Your task to perform on an android device: Go to Google maps Image 0: 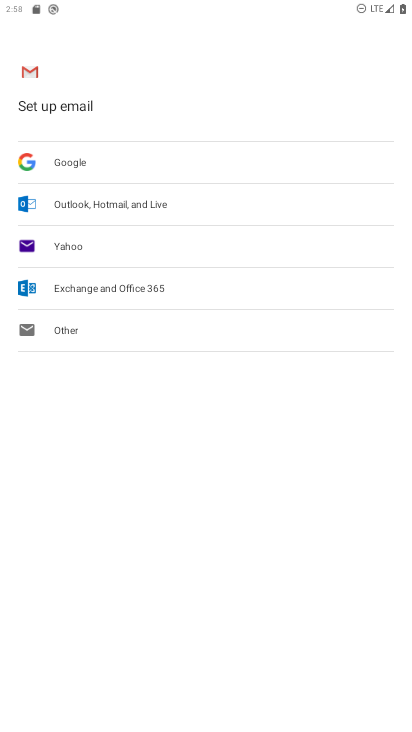
Step 0: press home button
Your task to perform on an android device: Go to Google maps Image 1: 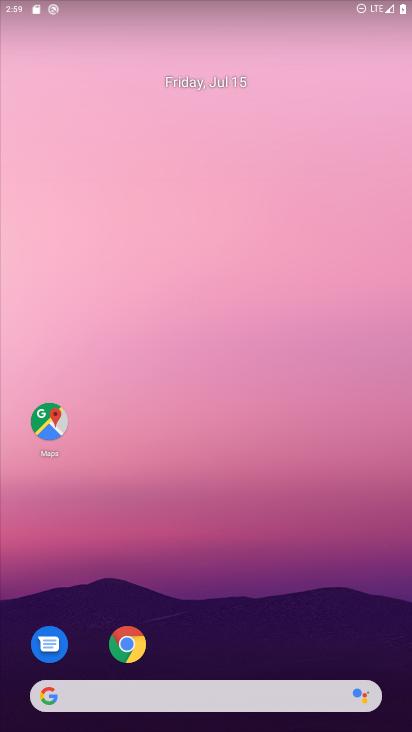
Step 1: click (35, 425)
Your task to perform on an android device: Go to Google maps Image 2: 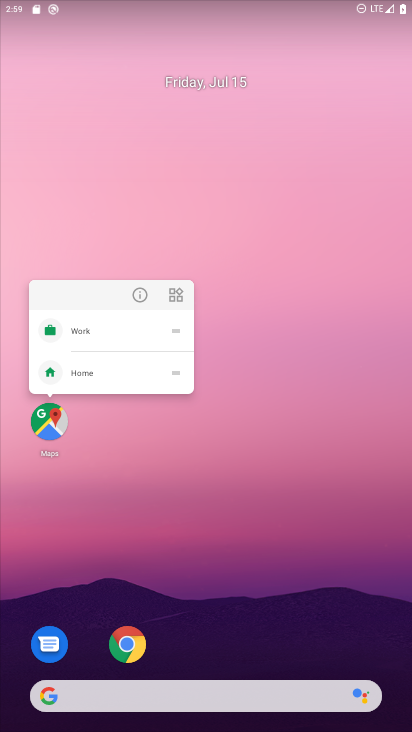
Step 2: click (204, 487)
Your task to perform on an android device: Go to Google maps Image 3: 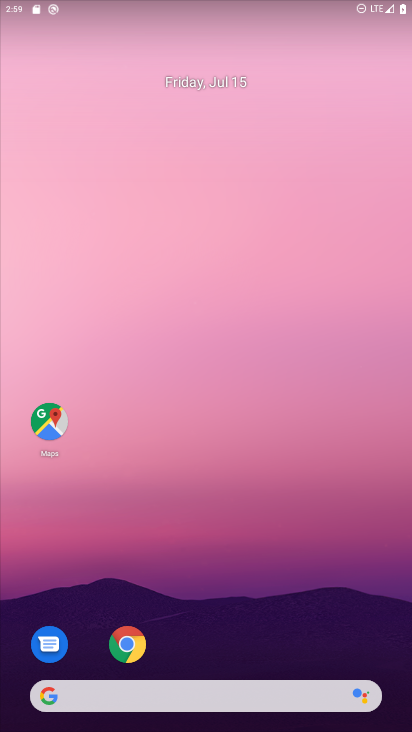
Step 3: click (60, 426)
Your task to perform on an android device: Go to Google maps Image 4: 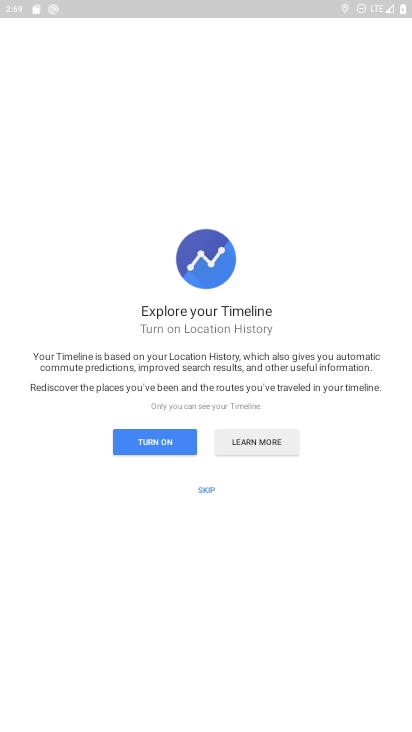
Step 4: click (198, 500)
Your task to perform on an android device: Go to Google maps Image 5: 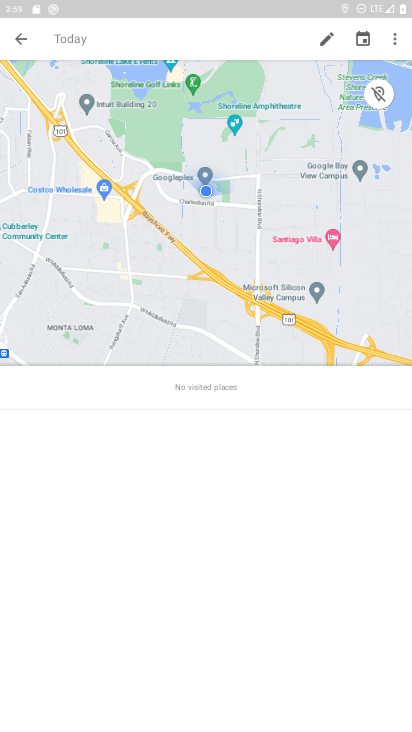
Step 5: task complete